Your task to perform on an android device: toggle airplane mode Image 0: 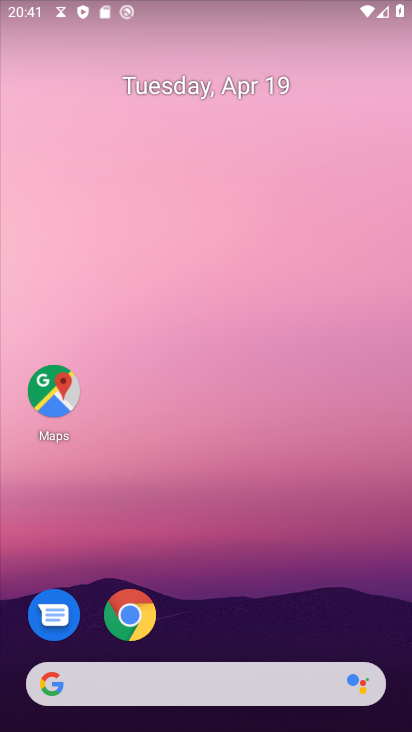
Step 0: drag from (408, 686) to (350, 4)
Your task to perform on an android device: toggle airplane mode Image 1: 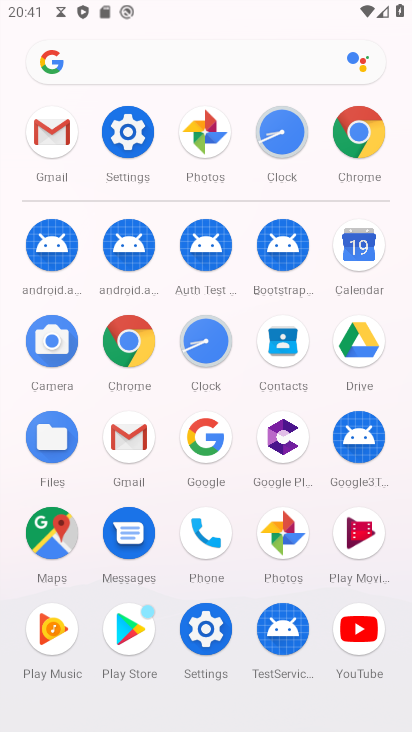
Step 1: click (206, 626)
Your task to perform on an android device: toggle airplane mode Image 2: 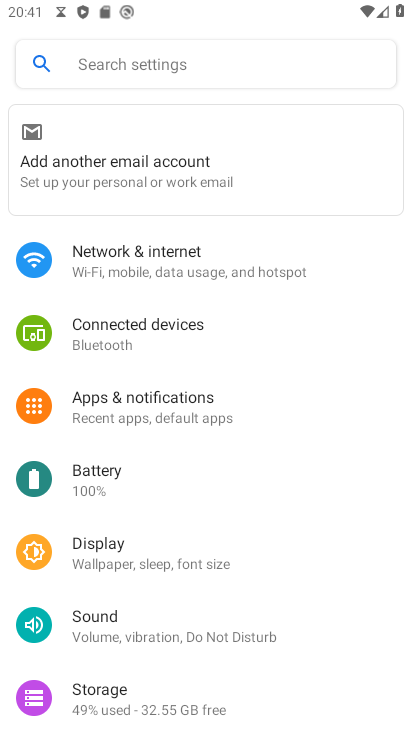
Step 2: click (156, 272)
Your task to perform on an android device: toggle airplane mode Image 3: 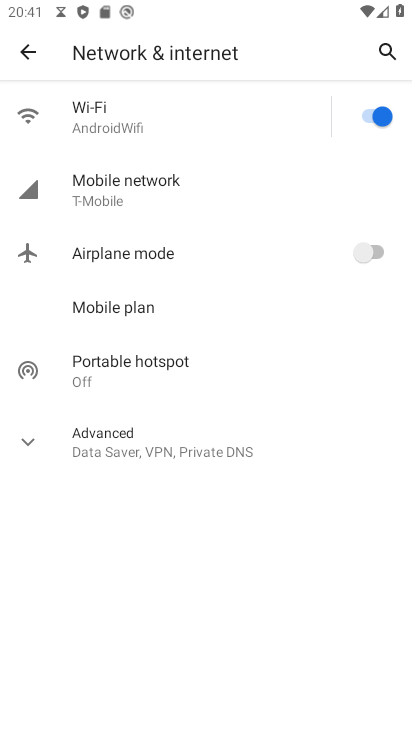
Step 3: click (355, 251)
Your task to perform on an android device: toggle airplane mode Image 4: 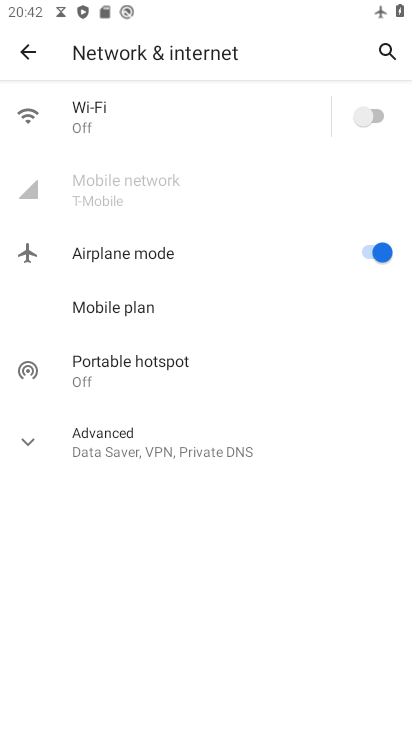
Step 4: task complete